Your task to perform on an android device: Open accessibility settings Image 0: 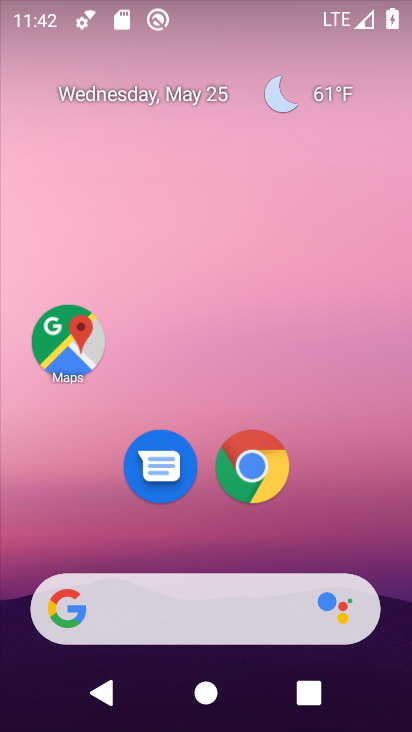
Step 0: drag from (226, 471) to (276, 69)
Your task to perform on an android device: Open accessibility settings Image 1: 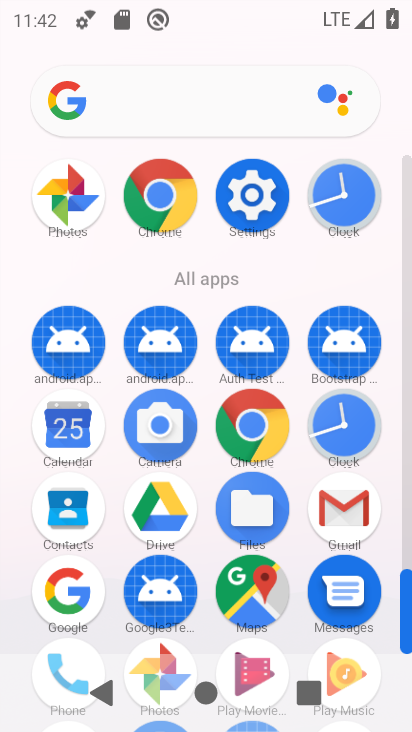
Step 1: click (271, 206)
Your task to perform on an android device: Open accessibility settings Image 2: 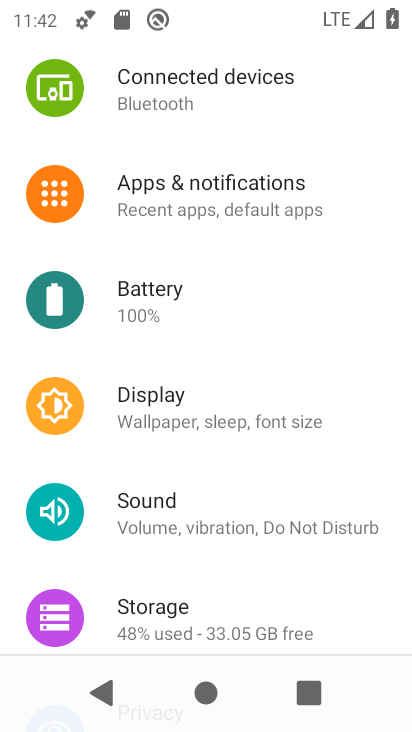
Step 2: drag from (194, 458) to (205, 318)
Your task to perform on an android device: Open accessibility settings Image 3: 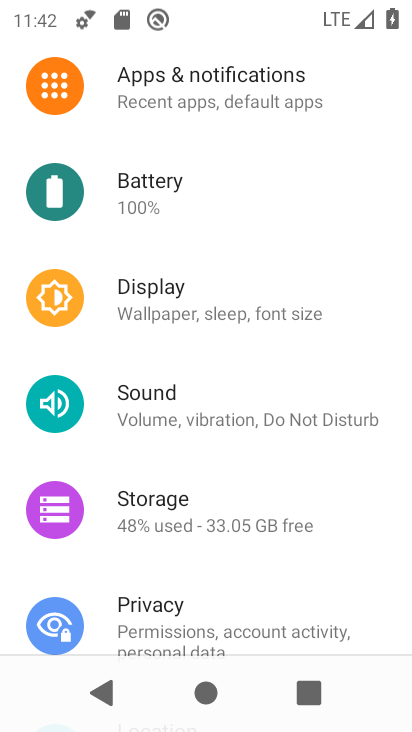
Step 3: drag from (256, 479) to (303, 250)
Your task to perform on an android device: Open accessibility settings Image 4: 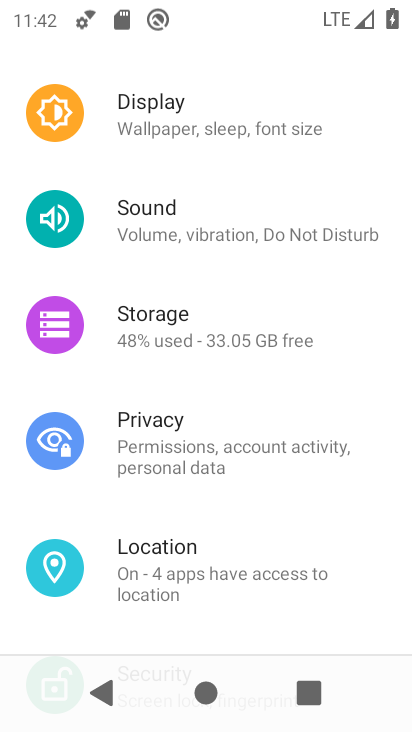
Step 4: drag from (229, 533) to (266, 308)
Your task to perform on an android device: Open accessibility settings Image 5: 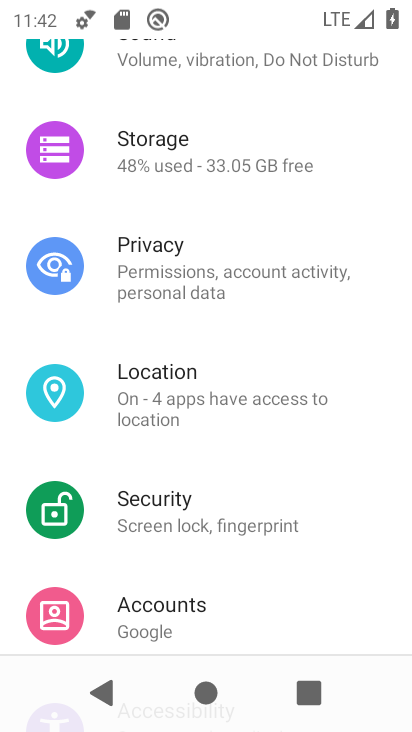
Step 5: drag from (235, 536) to (265, 332)
Your task to perform on an android device: Open accessibility settings Image 6: 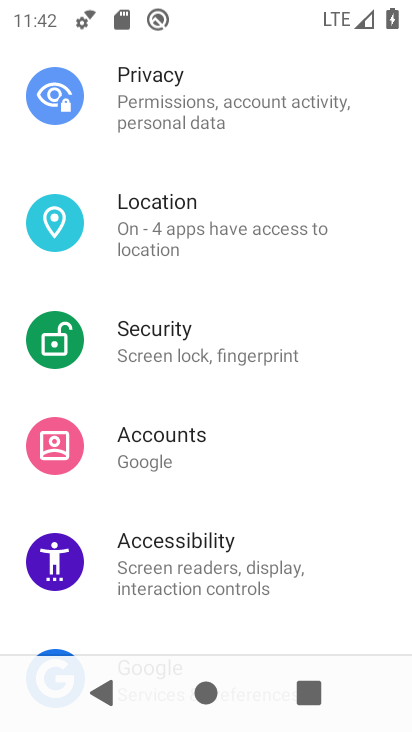
Step 6: click (203, 542)
Your task to perform on an android device: Open accessibility settings Image 7: 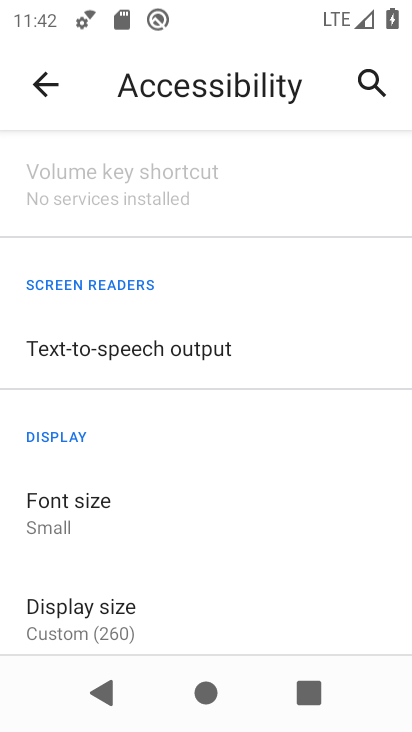
Step 7: task complete